Your task to perform on an android device: Open the map Image 0: 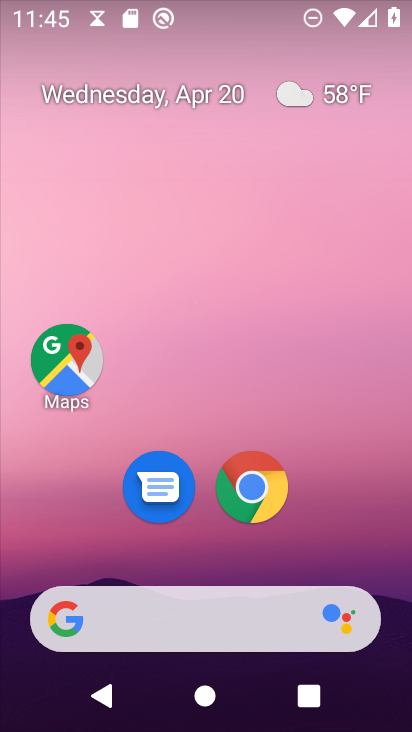
Step 0: click (283, 103)
Your task to perform on an android device: Open the map Image 1: 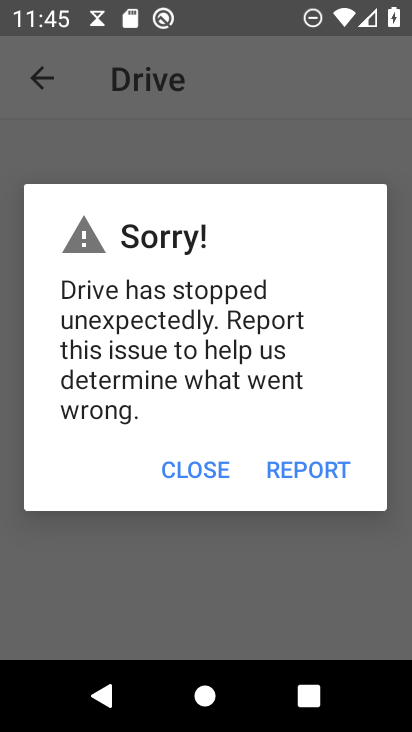
Step 1: press home button
Your task to perform on an android device: Open the map Image 2: 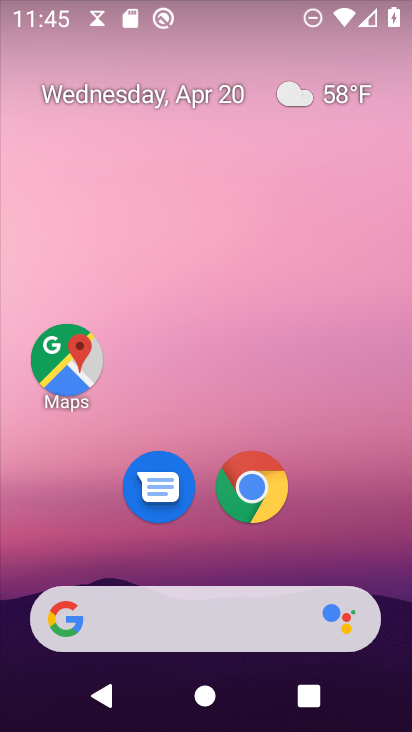
Step 2: drag from (306, 541) to (287, 116)
Your task to perform on an android device: Open the map Image 3: 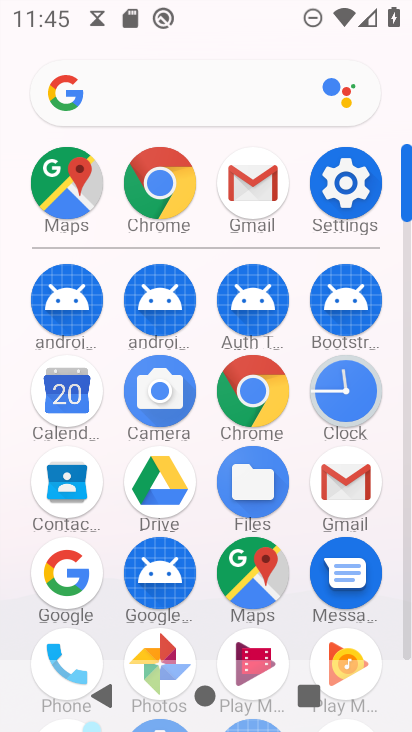
Step 3: click (61, 176)
Your task to perform on an android device: Open the map Image 4: 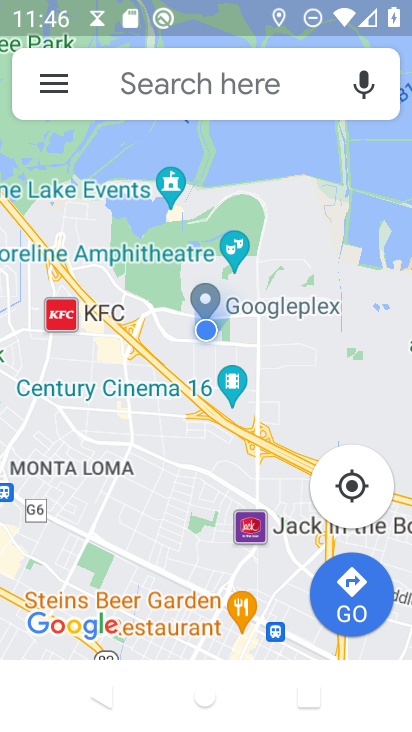
Step 4: task complete